Your task to perform on an android device: turn on notifications settings in the gmail app Image 0: 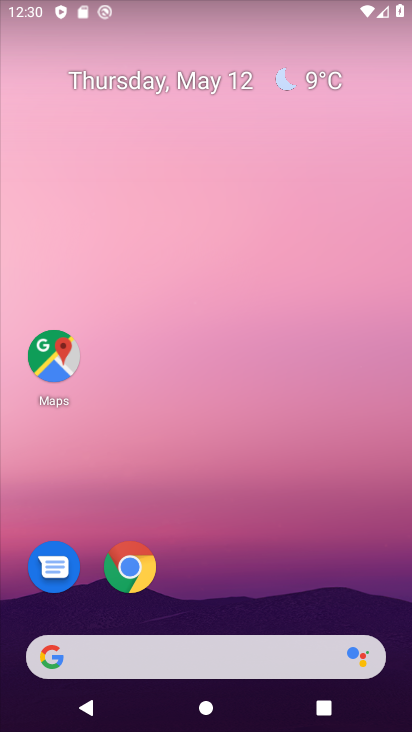
Step 0: drag from (194, 635) to (268, 95)
Your task to perform on an android device: turn on notifications settings in the gmail app Image 1: 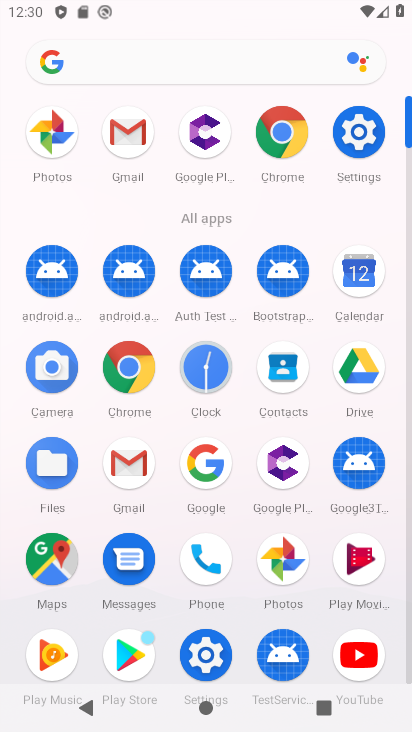
Step 1: click (142, 471)
Your task to perform on an android device: turn on notifications settings in the gmail app Image 2: 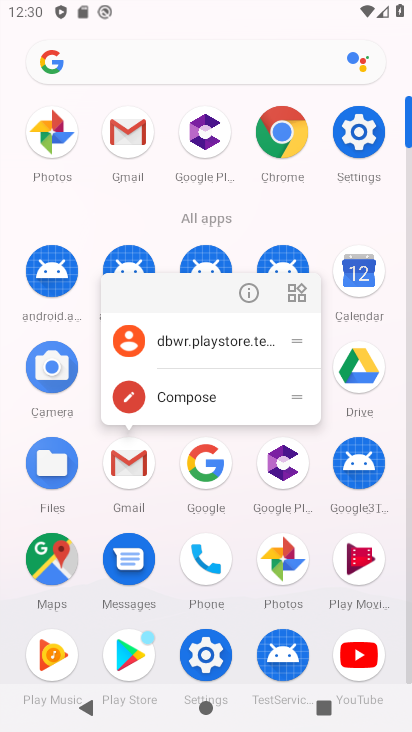
Step 2: click (126, 481)
Your task to perform on an android device: turn on notifications settings in the gmail app Image 3: 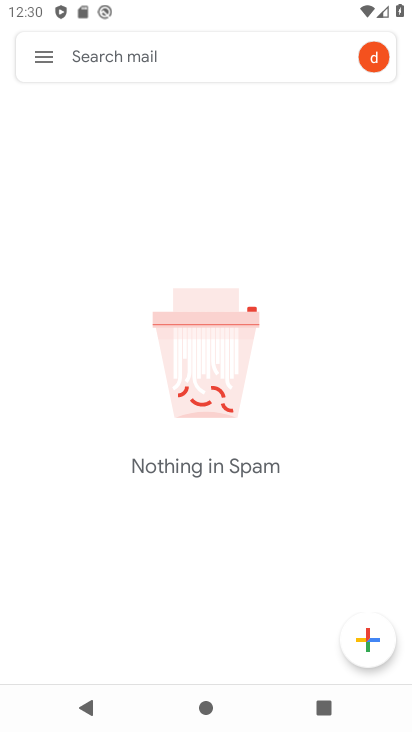
Step 3: click (29, 54)
Your task to perform on an android device: turn on notifications settings in the gmail app Image 4: 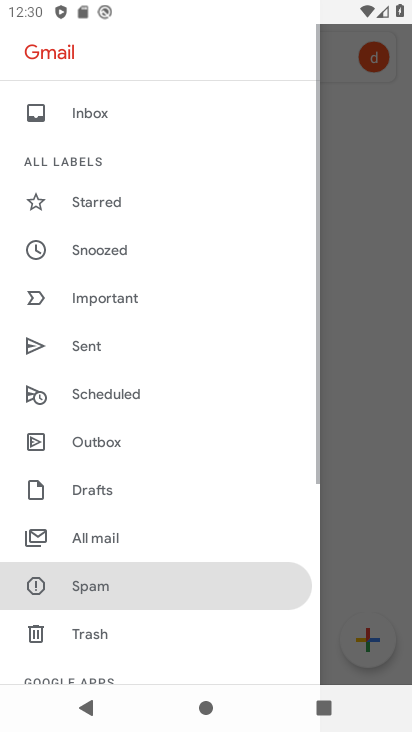
Step 4: drag from (129, 659) to (222, 313)
Your task to perform on an android device: turn on notifications settings in the gmail app Image 5: 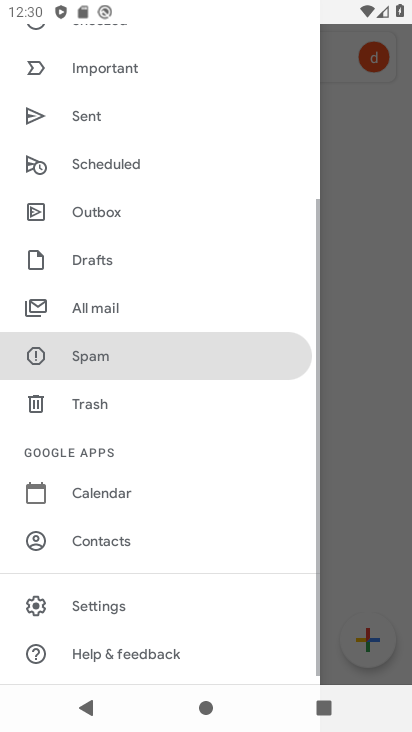
Step 5: click (124, 601)
Your task to perform on an android device: turn on notifications settings in the gmail app Image 6: 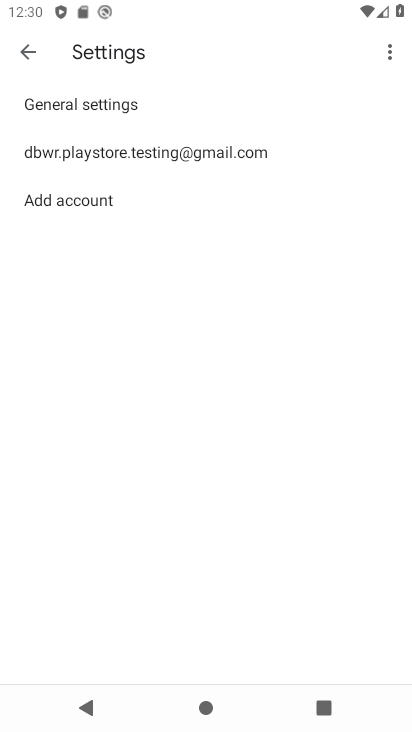
Step 6: click (215, 155)
Your task to perform on an android device: turn on notifications settings in the gmail app Image 7: 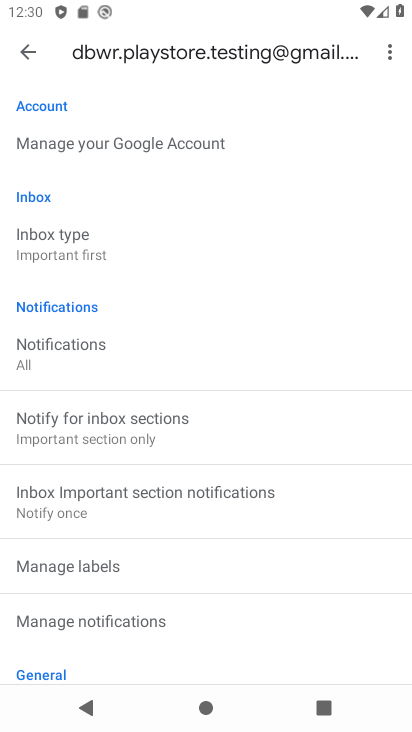
Step 7: drag from (152, 625) to (247, 370)
Your task to perform on an android device: turn on notifications settings in the gmail app Image 8: 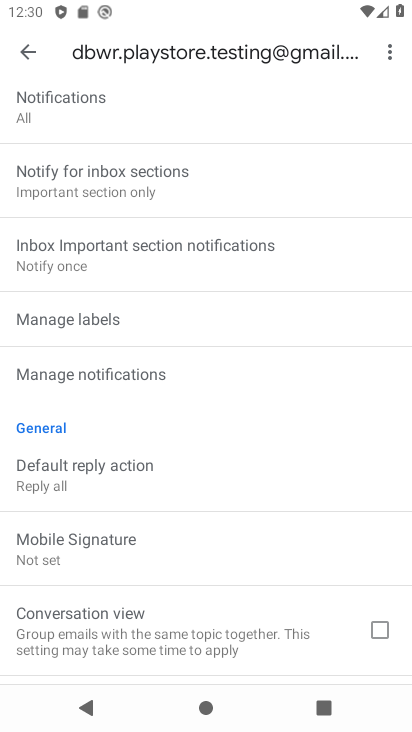
Step 8: click (173, 370)
Your task to perform on an android device: turn on notifications settings in the gmail app Image 9: 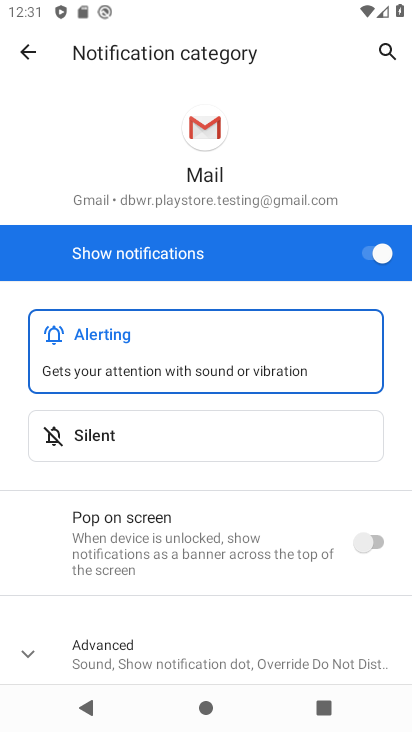
Step 9: task complete